Your task to perform on an android device: Go to notification settings Image 0: 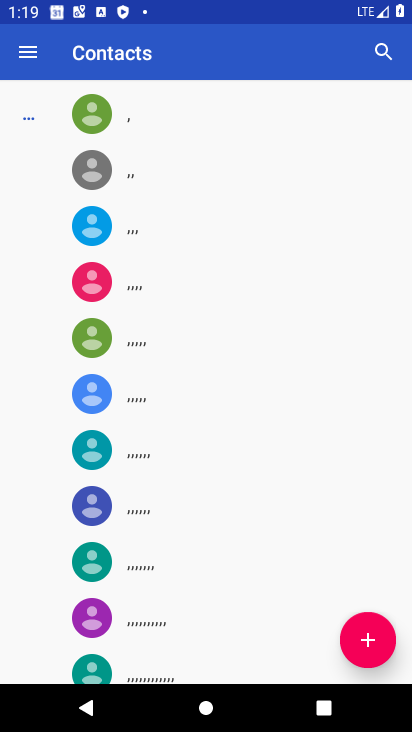
Step 0: press home button
Your task to perform on an android device: Go to notification settings Image 1: 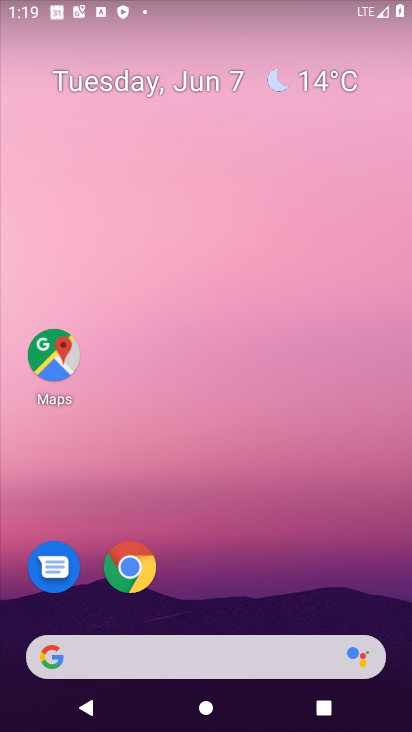
Step 1: drag from (225, 617) to (262, 12)
Your task to perform on an android device: Go to notification settings Image 2: 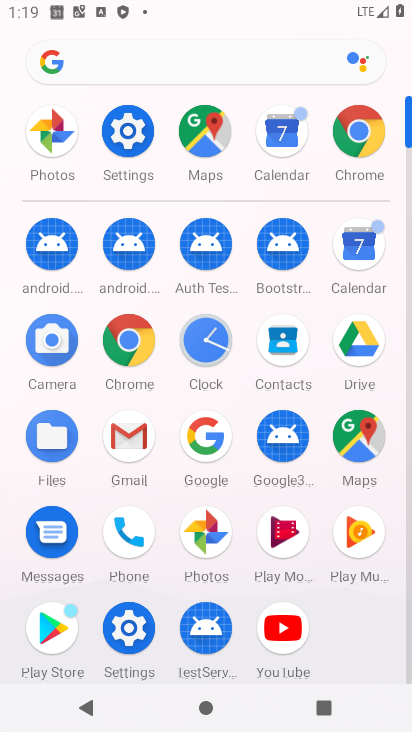
Step 2: click (126, 127)
Your task to perform on an android device: Go to notification settings Image 3: 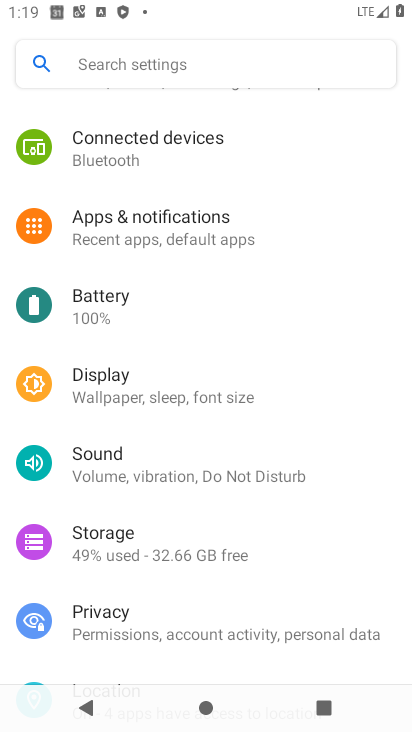
Step 3: click (176, 227)
Your task to perform on an android device: Go to notification settings Image 4: 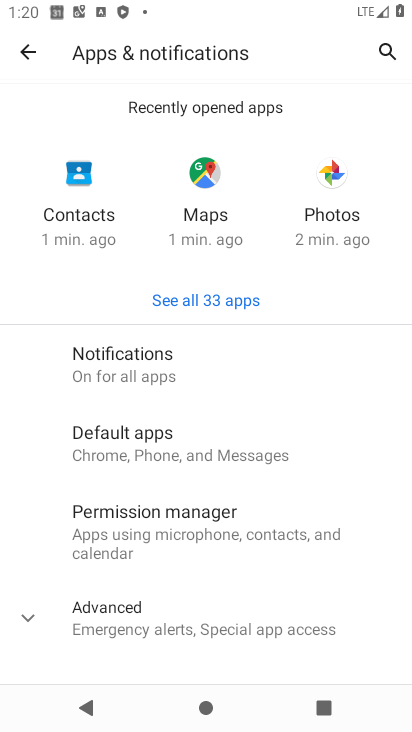
Step 4: task complete